Your task to perform on an android device: Add logitech g502 to the cart on bestbuy.com Image 0: 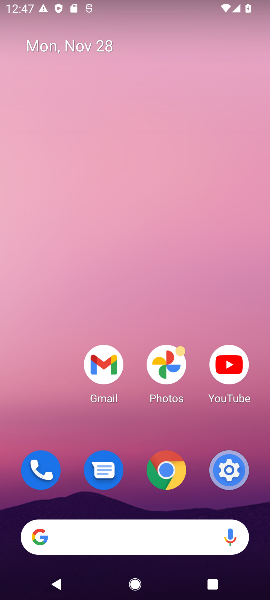
Step 0: click (114, 540)
Your task to perform on an android device: Add logitech g502 to the cart on bestbuy.com Image 1: 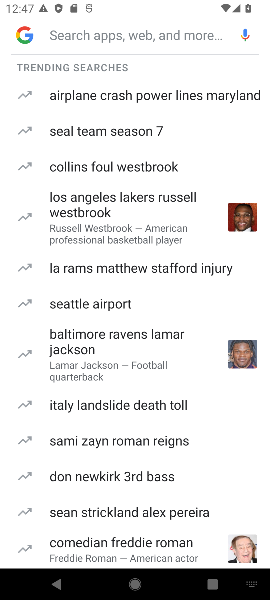
Step 1: type "bestb buy"
Your task to perform on an android device: Add logitech g502 to the cart on bestbuy.com Image 2: 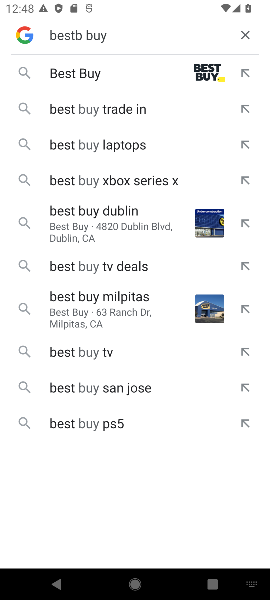
Step 2: click (96, 63)
Your task to perform on an android device: Add logitech g502 to the cart on bestbuy.com Image 3: 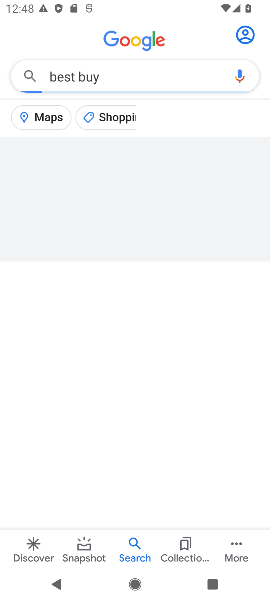
Step 3: task complete